Your task to perform on an android device: Go to ESPN.com Image 0: 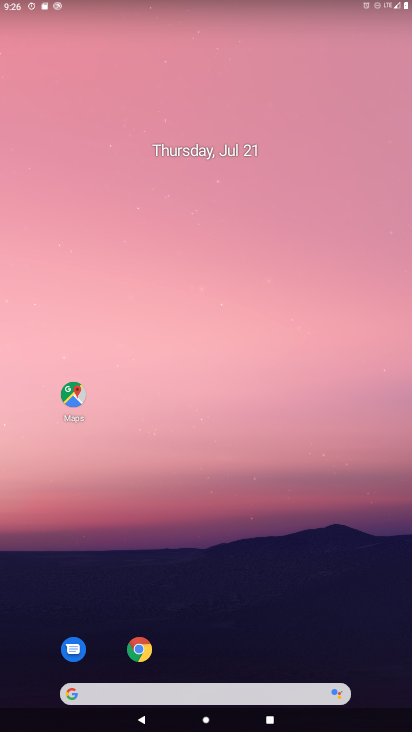
Step 0: drag from (362, 640) to (178, 15)
Your task to perform on an android device: Go to ESPN.com Image 1: 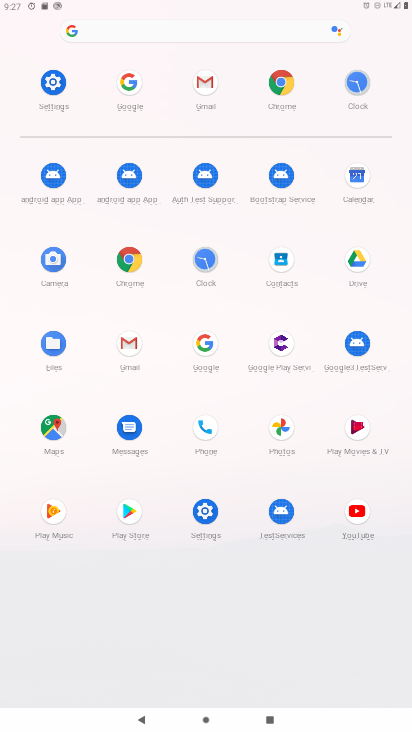
Step 1: click (194, 348)
Your task to perform on an android device: Go to ESPN.com Image 2: 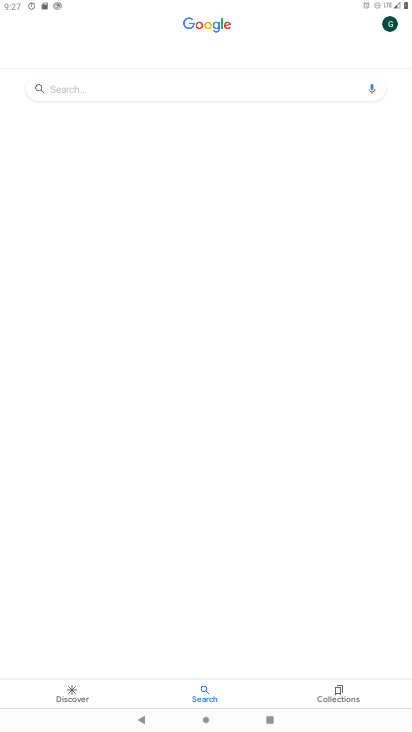
Step 2: click (60, 91)
Your task to perform on an android device: Go to ESPN.com Image 3: 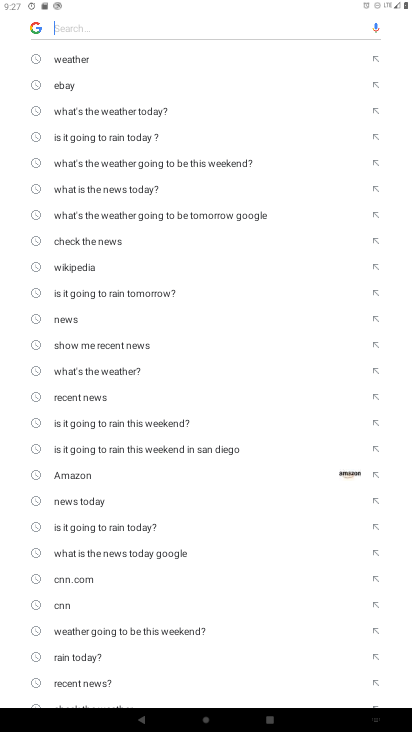
Step 3: type "ESPN.com"
Your task to perform on an android device: Go to ESPN.com Image 4: 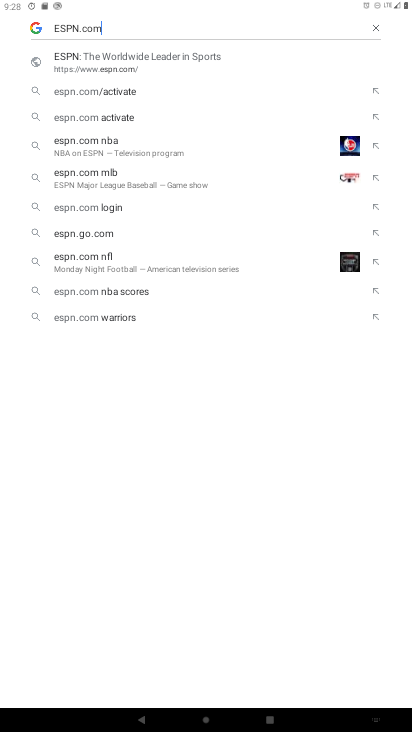
Step 4: click (88, 59)
Your task to perform on an android device: Go to ESPN.com Image 5: 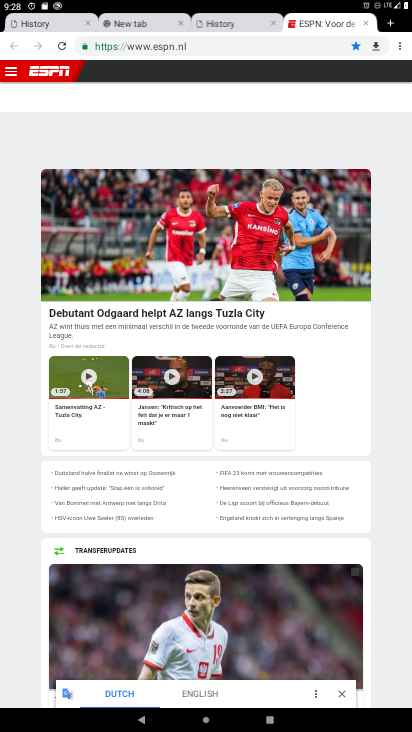
Step 5: task complete